Your task to perform on an android device: open app "Adobe Acrobat Reader: Edit PDF" (install if not already installed) Image 0: 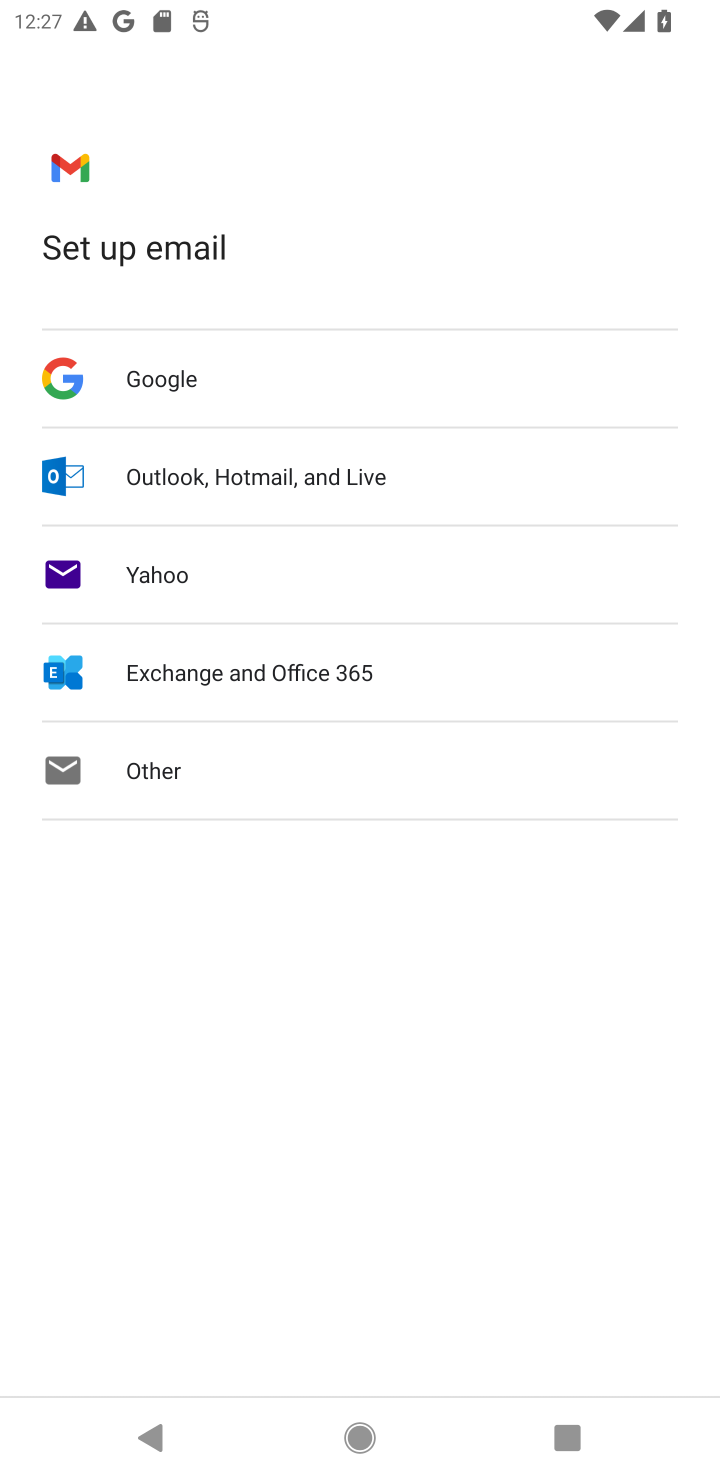
Step 0: press home button
Your task to perform on an android device: open app "Adobe Acrobat Reader: Edit PDF" (install if not already installed) Image 1: 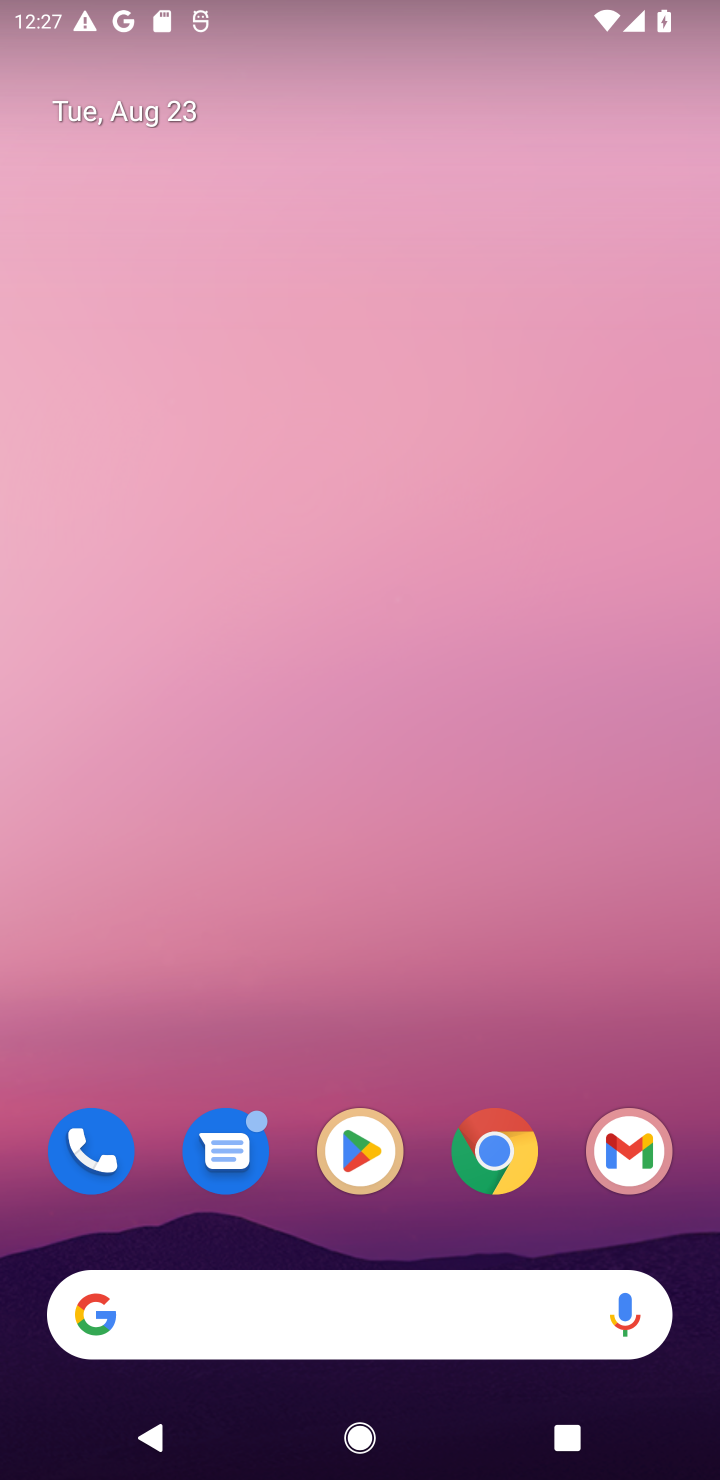
Step 1: click (337, 1151)
Your task to perform on an android device: open app "Adobe Acrobat Reader: Edit PDF" (install if not already installed) Image 2: 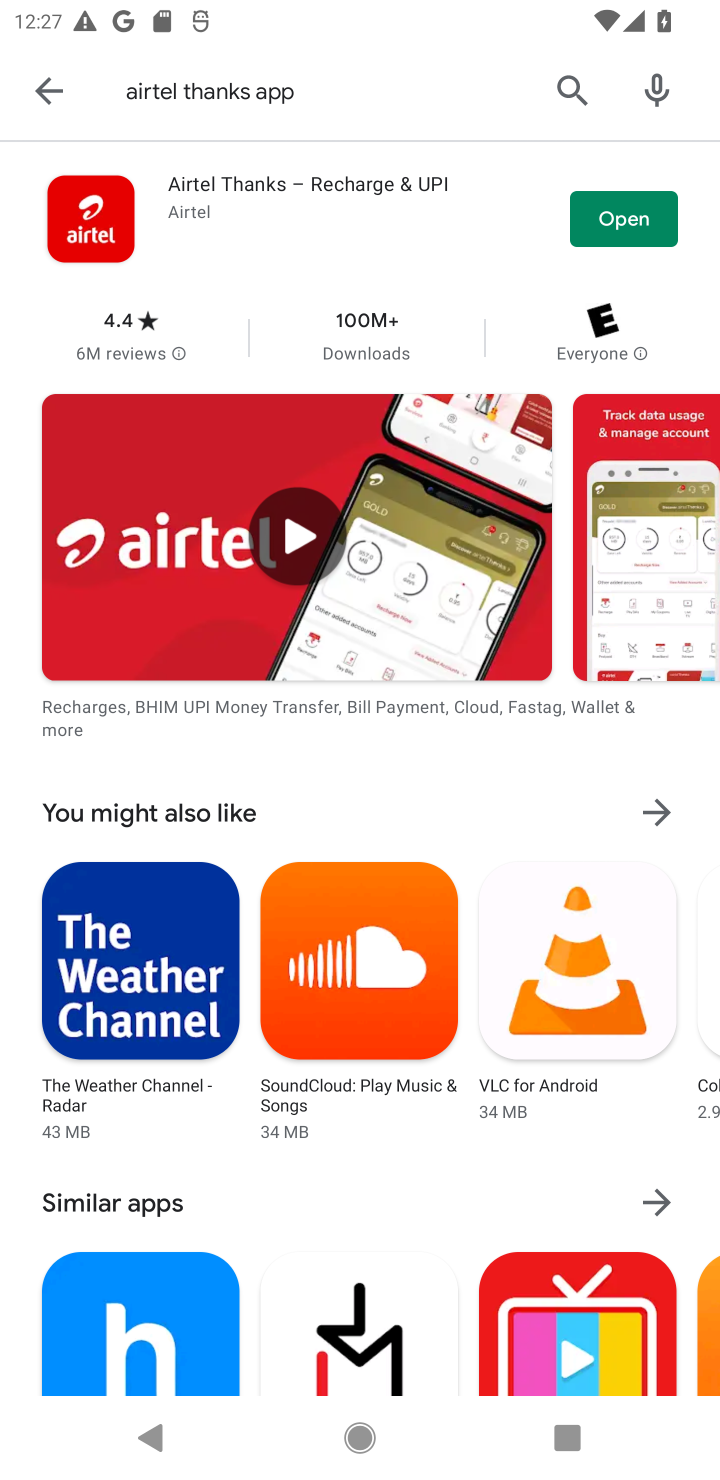
Step 2: click (626, 94)
Your task to perform on an android device: open app "Adobe Acrobat Reader: Edit PDF" (install if not already installed) Image 3: 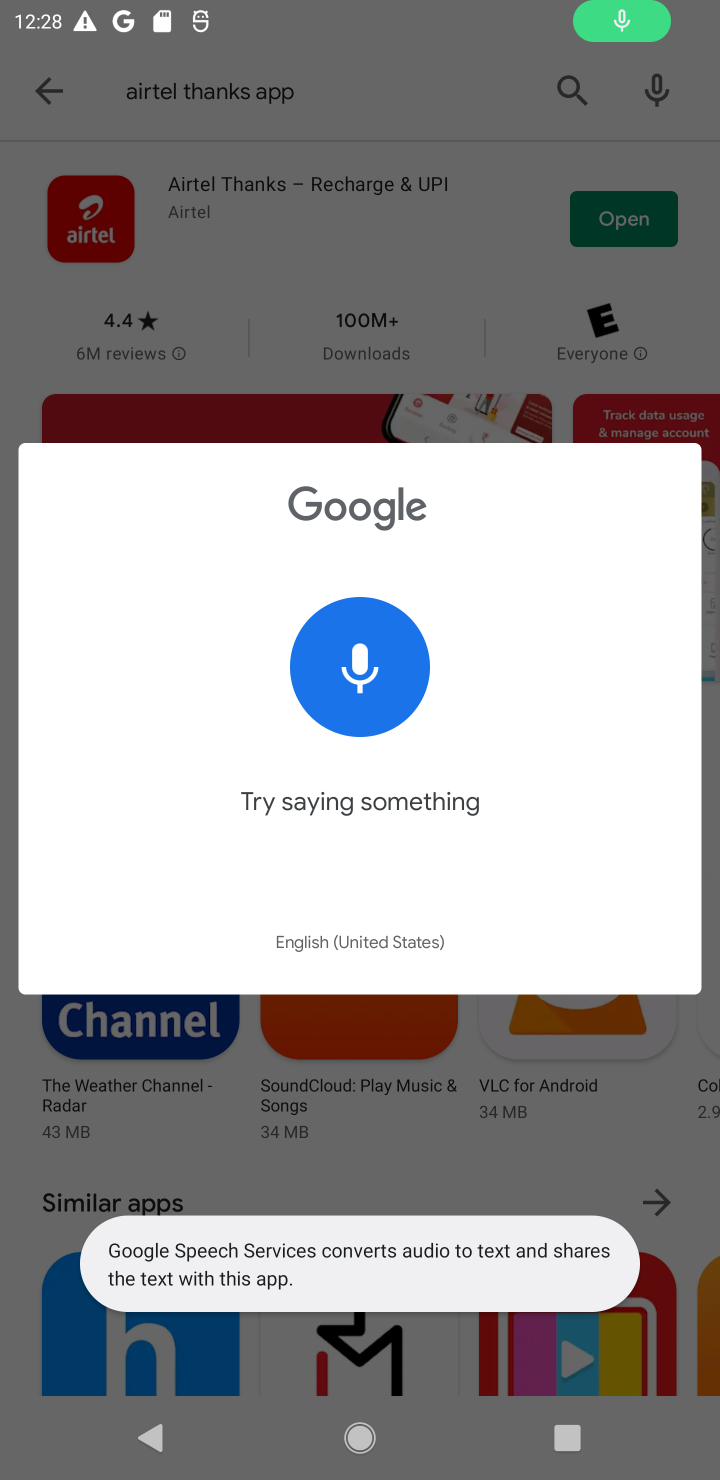
Step 3: click (573, 79)
Your task to perform on an android device: open app "Adobe Acrobat Reader: Edit PDF" (install if not already installed) Image 4: 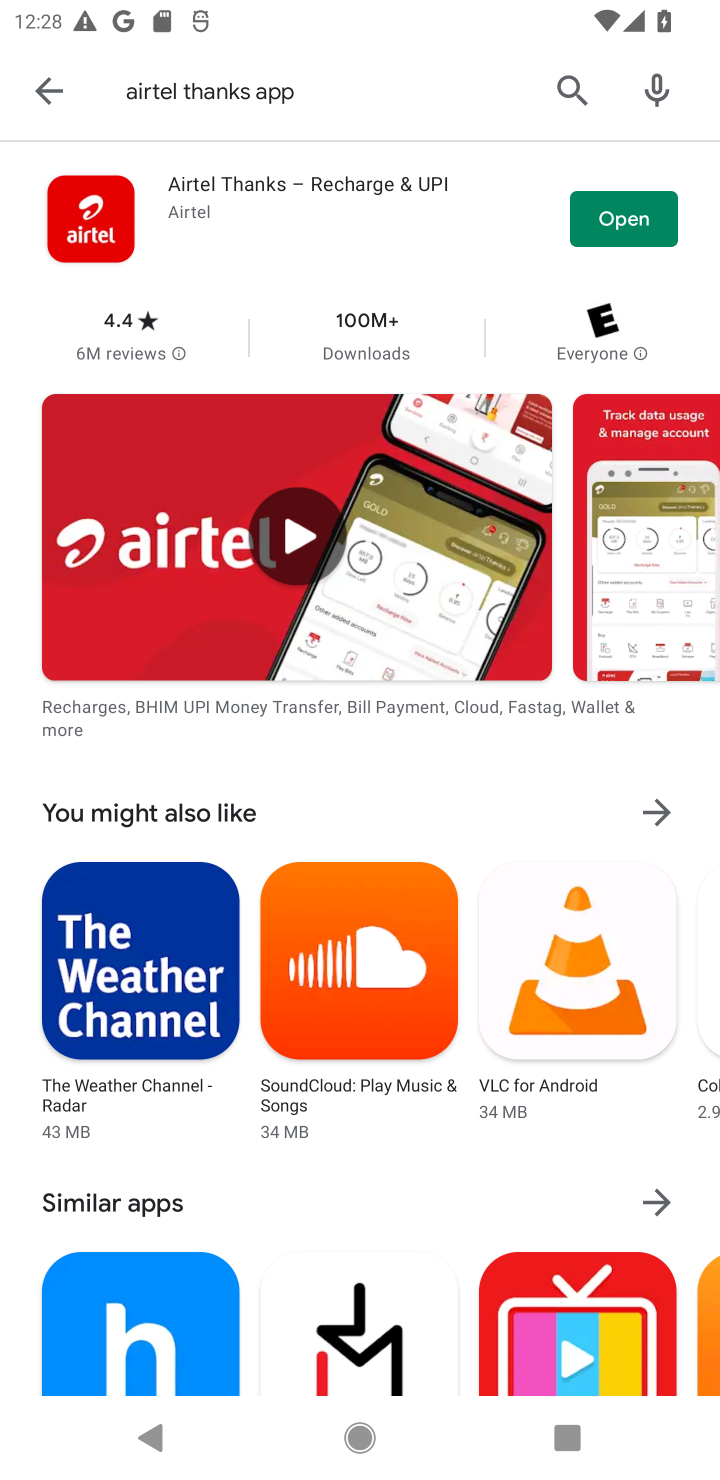
Step 4: click (578, 102)
Your task to perform on an android device: open app "Adobe Acrobat Reader: Edit PDF" (install if not already installed) Image 5: 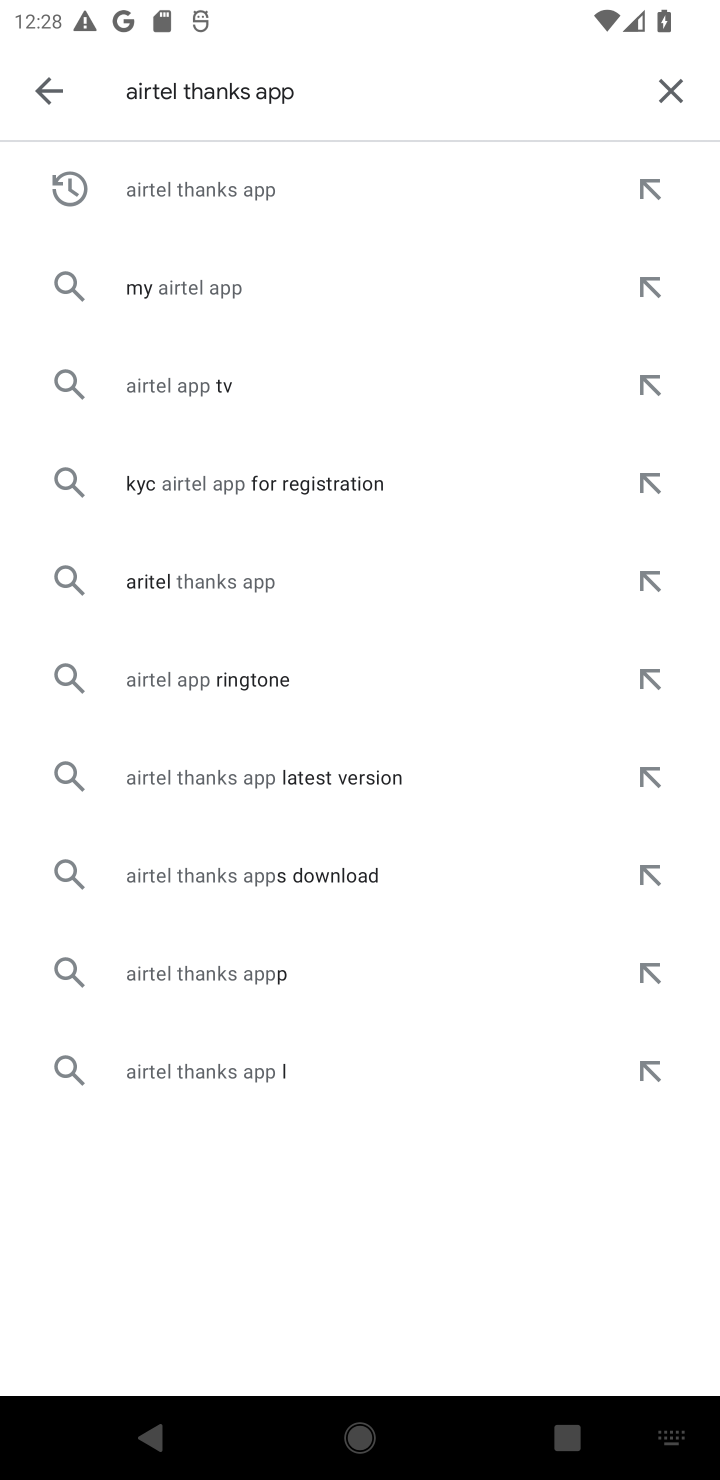
Step 5: click (665, 102)
Your task to perform on an android device: open app "Adobe Acrobat Reader: Edit PDF" (install if not already installed) Image 6: 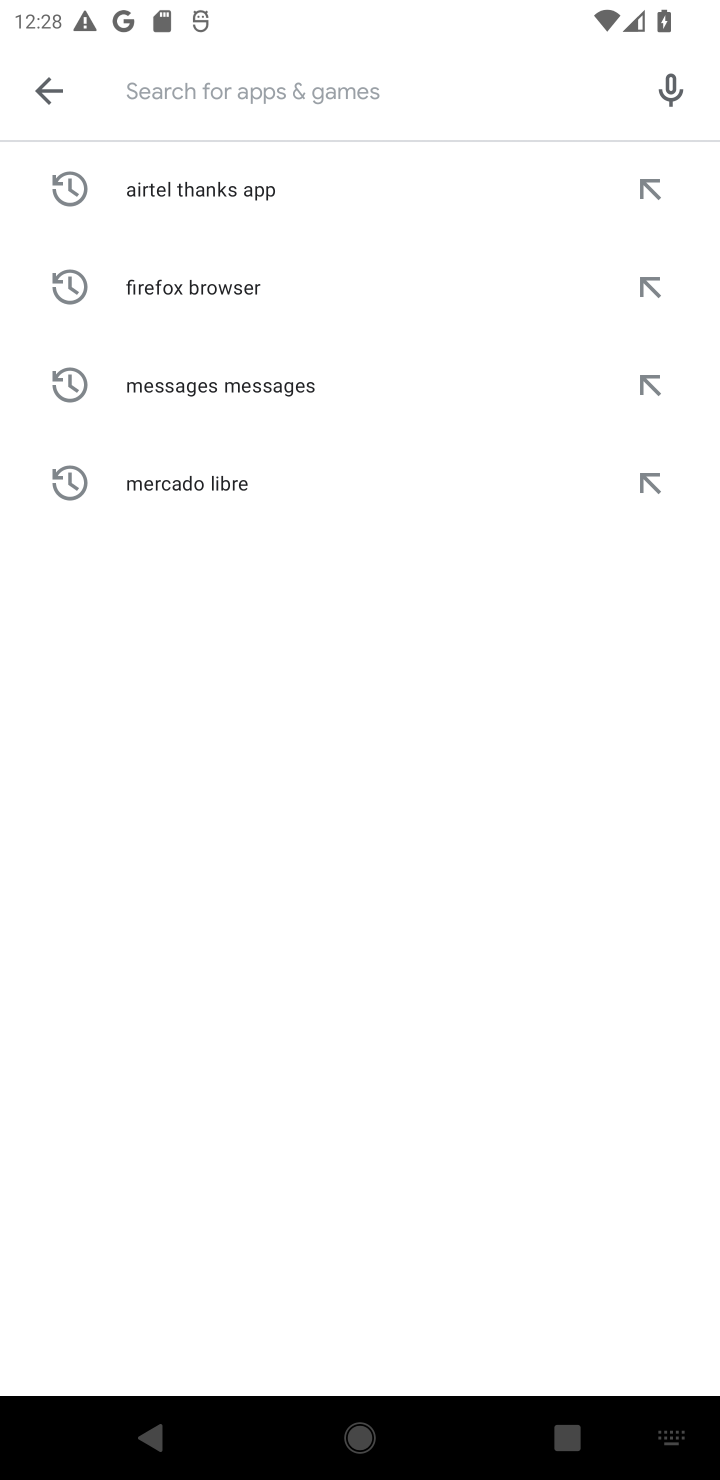
Step 6: type "Adobe Acrobat Reader: Edit PDF"
Your task to perform on an android device: open app "Adobe Acrobat Reader: Edit PDF" (install if not already installed) Image 7: 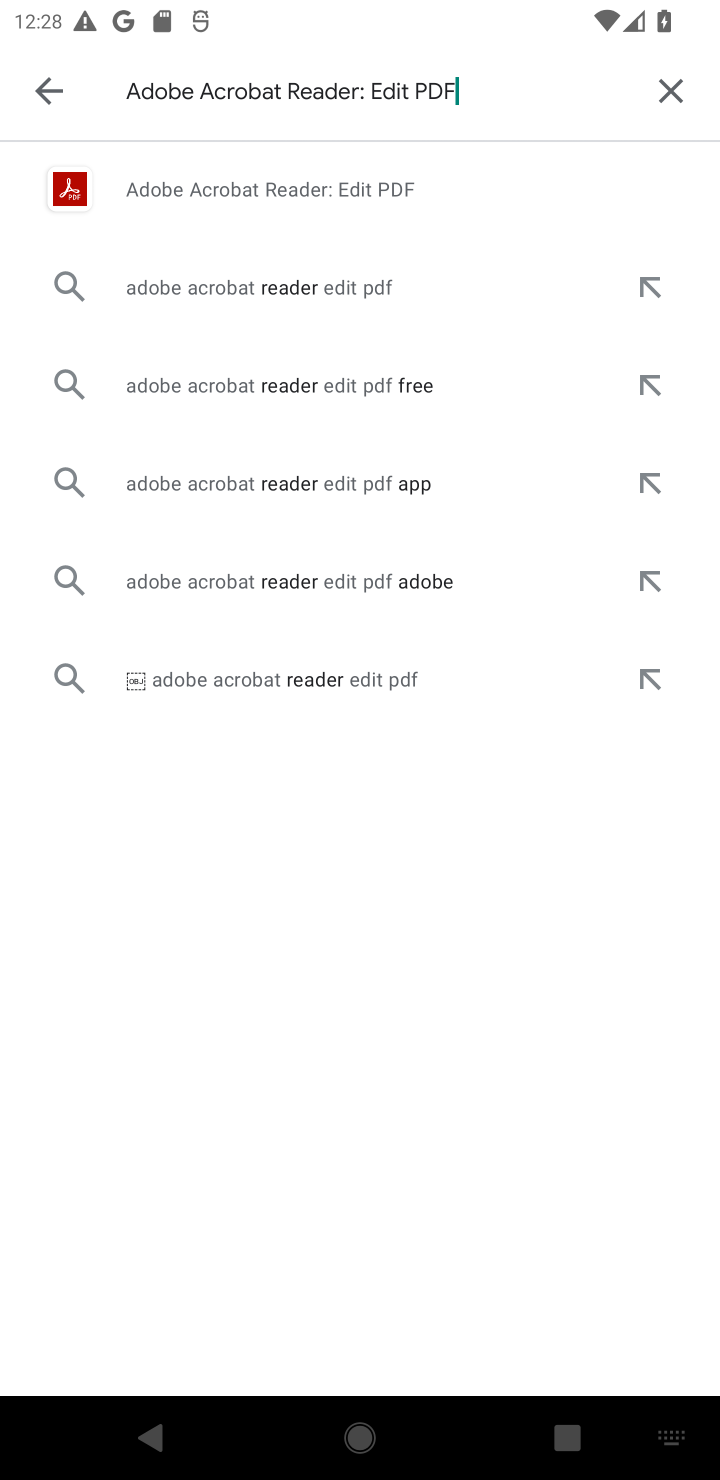
Step 7: click (426, 193)
Your task to perform on an android device: open app "Adobe Acrobat Reader: Edit PDF" (install if not already installed) Image 8: 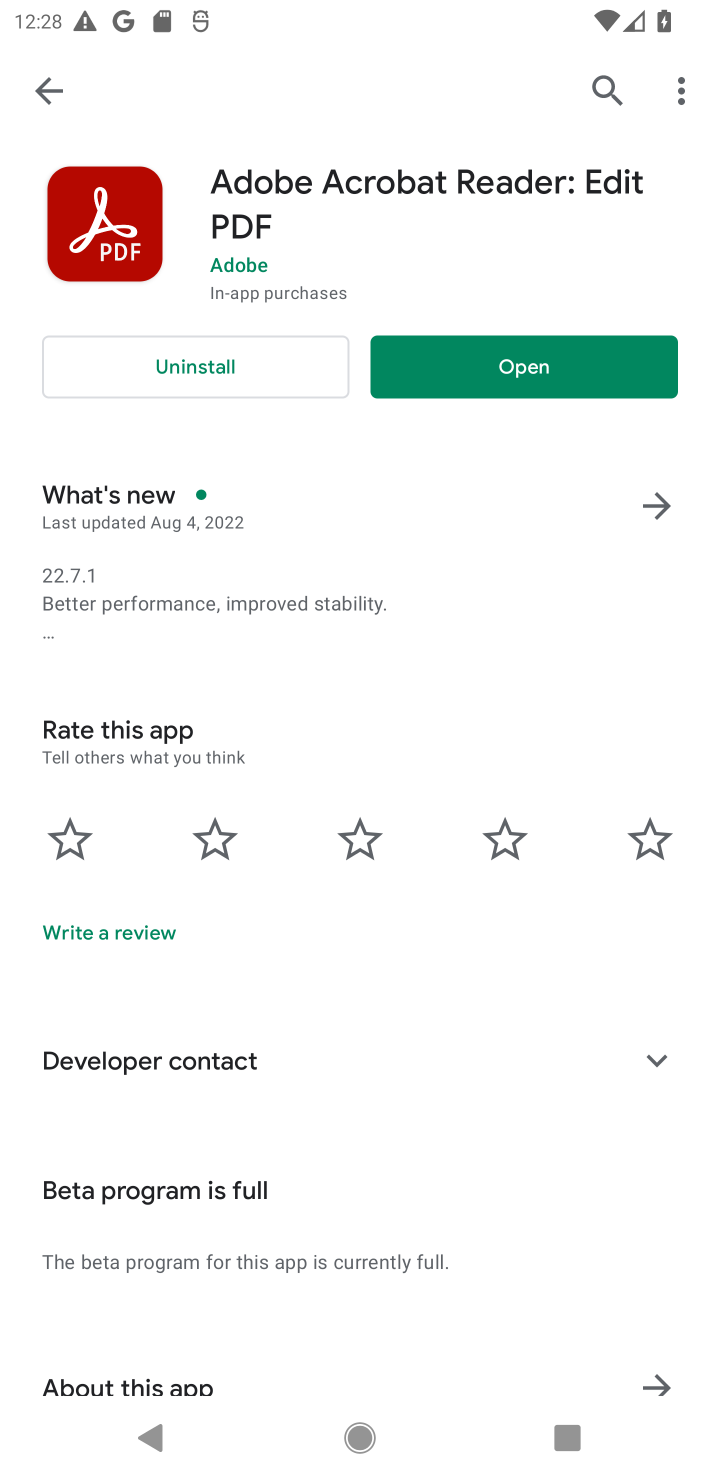
Step 8: click (499, 361)
Your task to perform on an android device: open app "Adobe Acrobat Reader: Edit PDF" (install if not already installed) Image 9: 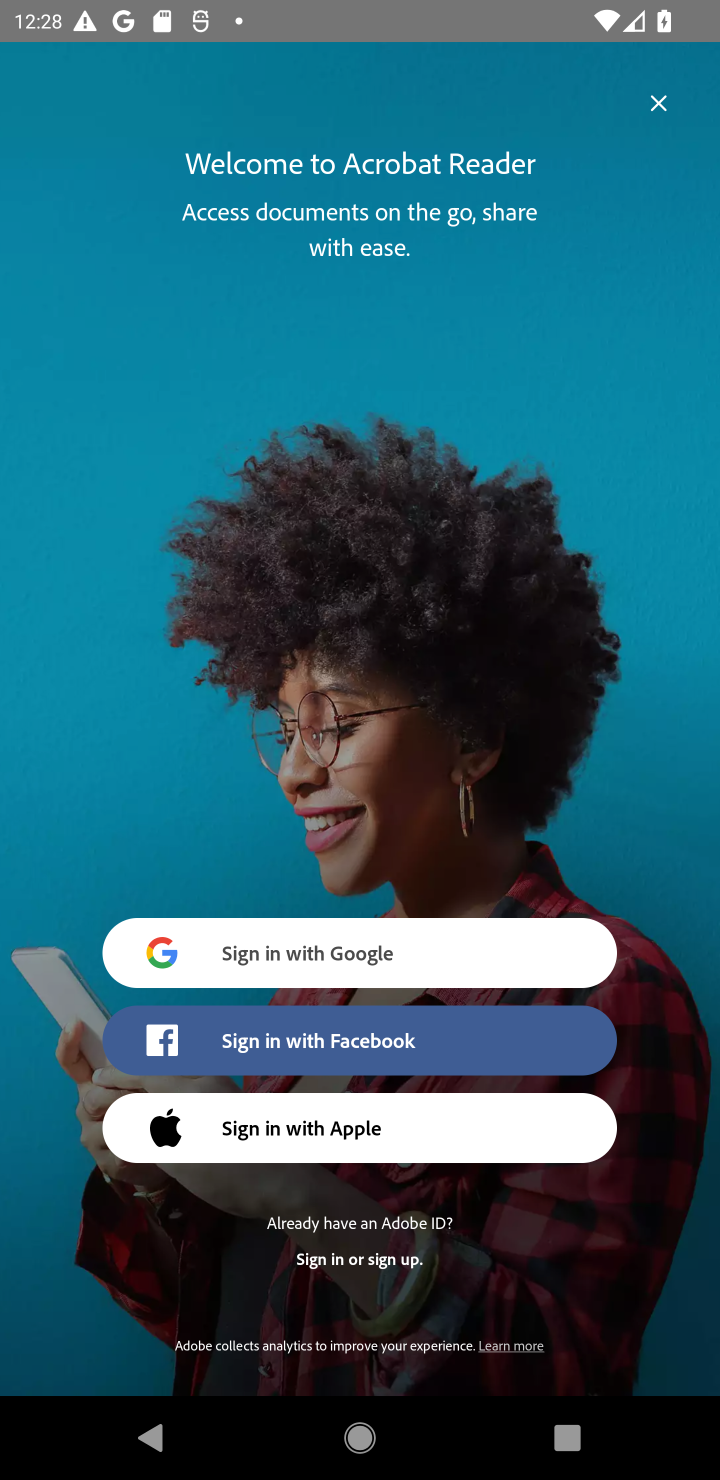
Step 9: task complete